Your task to perform on an android device: Go to internet settings Image 0: 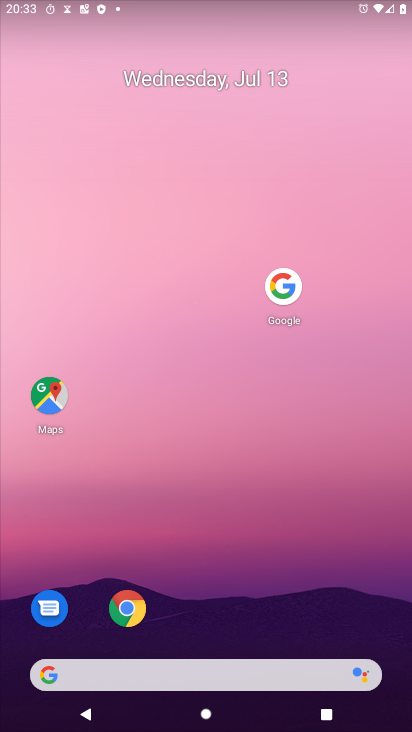
Step 0: drag from (203, 645) to (166, 77)
Your task to perform on an android device: Go to internet settings Image 1: 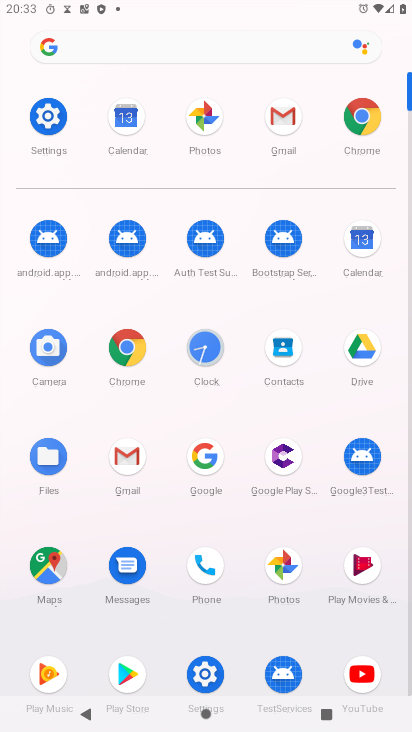
Step 1: click (47, 124)
Your task to perform on an android device: Go to internet settings Image 2: 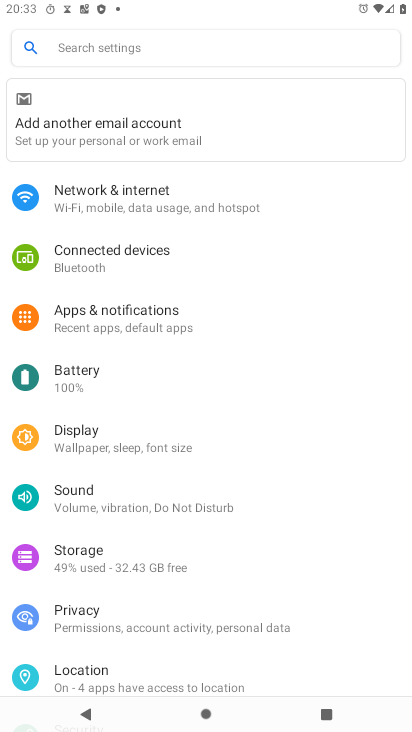
Step 2: click (72, 189)
Your task to perform on an android device: Go to internet settings Image 3: 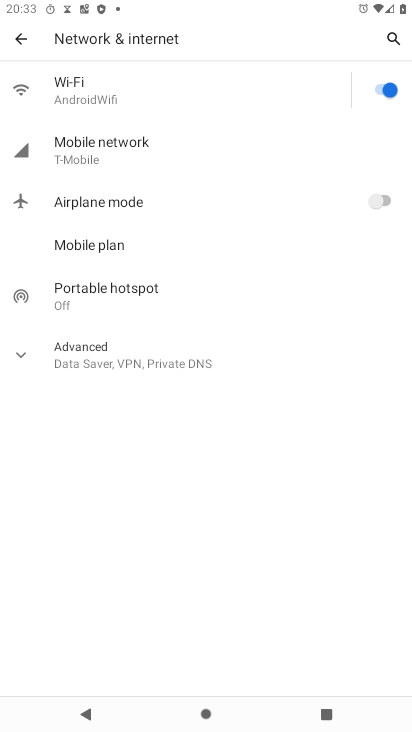
Step 3: click (85, 150)
Your task to perform on an android device: Go to internet settings Image 4: 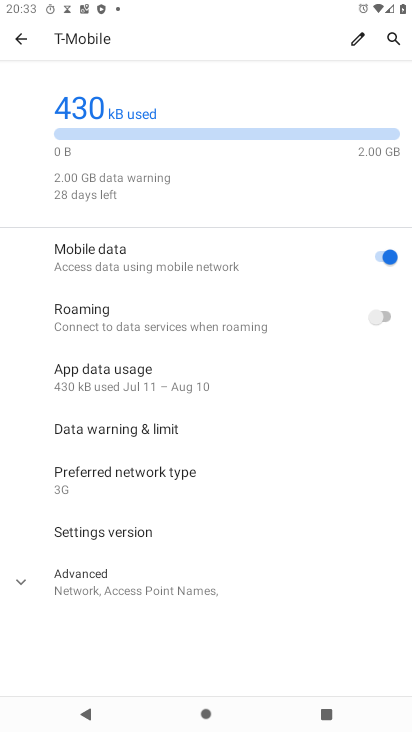
Step 4: task complete